Your task to perform on an android device: Go to Wikipedia Image 0: 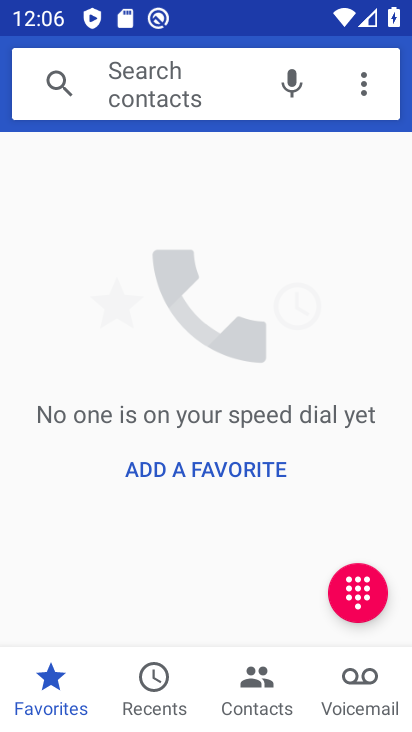
Step 0: press home button
Your task to perform on an android device: Go to Wikipedia Image 1: 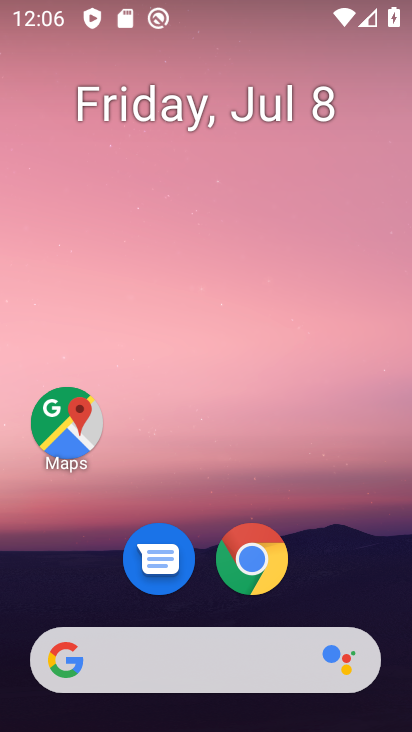
Step 1: click (248, 566)
Your task to perform on an android device: Go to Wikipedia Image 2: 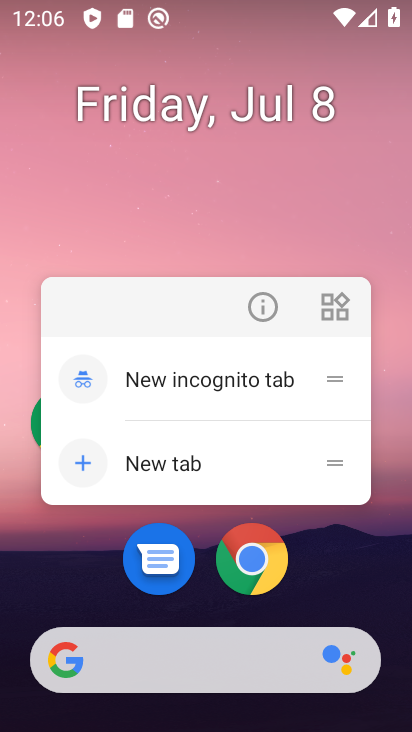
Step 2: click (271, 548)
Your task to perform on an android device: Go to Wikipedia Image 3: 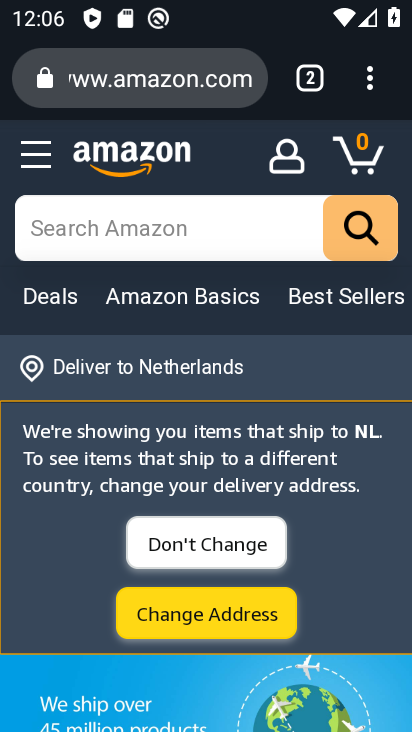
Step 3: click (313, 71)
Your task to perform on an android device: Go to Wikipedia Image 4: 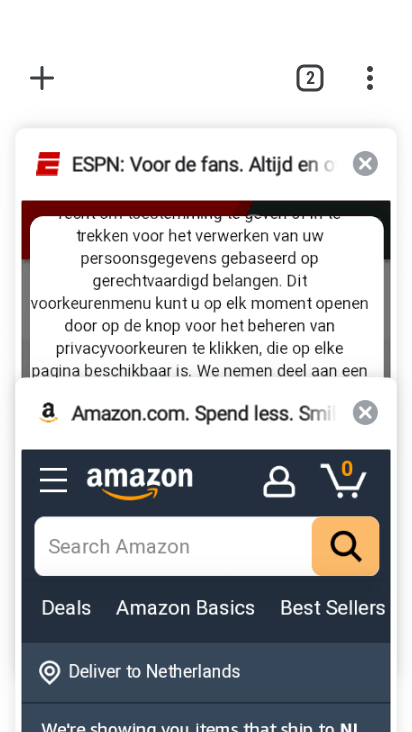
Step 4: click (39, 77)
Your task to perform on an android device: Go to Wikipedia Image 5: 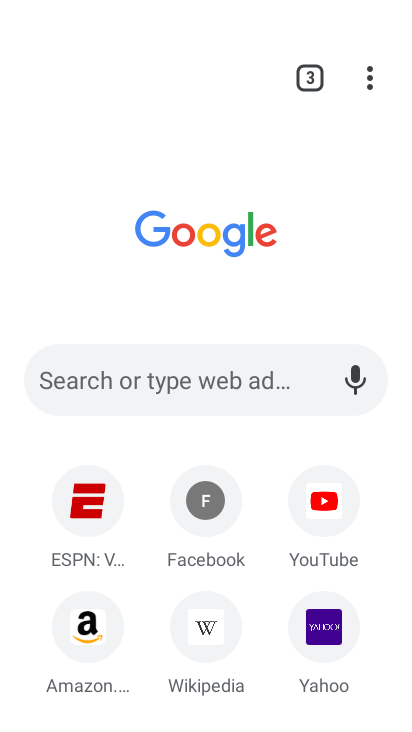
Step 5: click (215, 620)
Your task to perform on an android device: Go to Wikipedia Image 6: 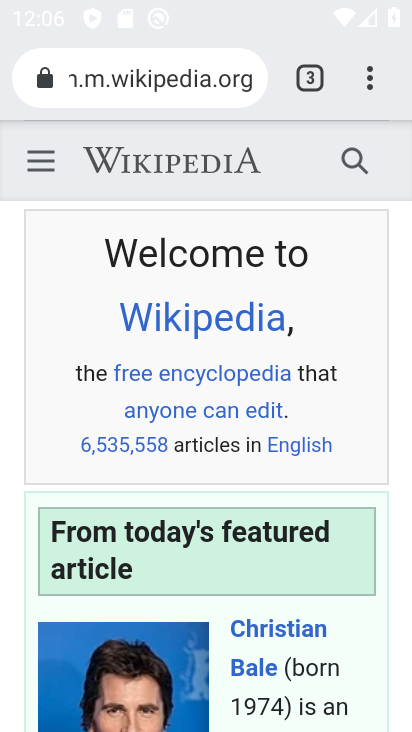
Step 6: task complete